Your task to perform on an android device: Go to ESPN.com Image 0: 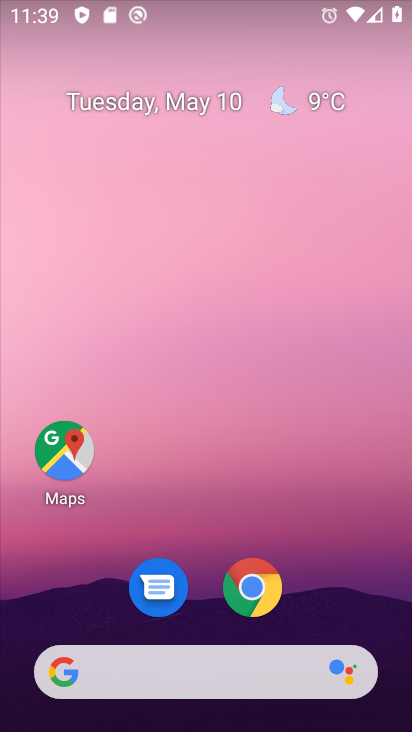
Step 0: click (251, 588)
Your task to perform on an android device: Go to ESPN.com Image 1: 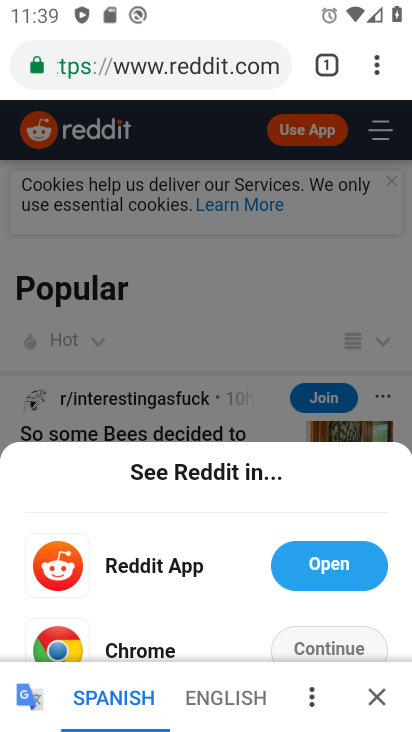
Step 1: click (115, 60)
Your task to perform on an android device: Go to ESPN.com Image 2: 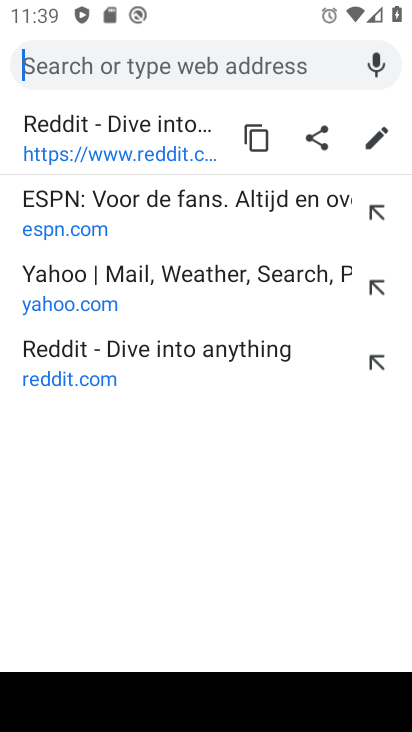
Step 2: click (67, 210)
Your task to perform on an android device: Go to ESPN.com Image 3: 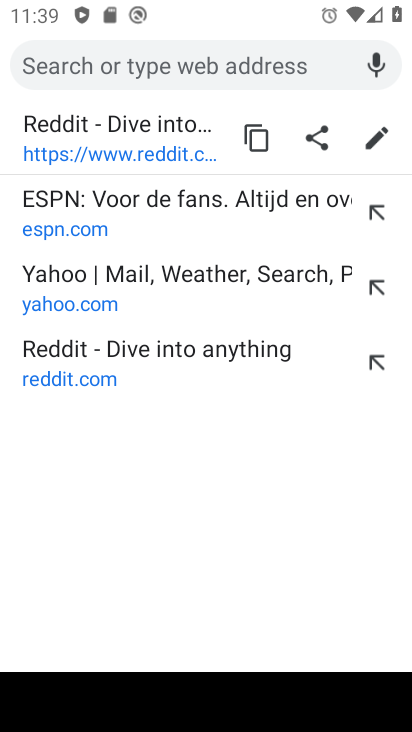
Step 3: click (61, 215)
Your task to perform on an android device: Go to ESPN.com Image 4: 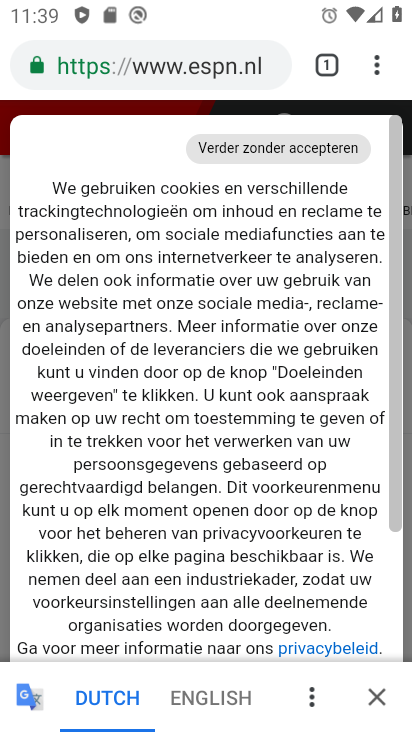
Step 4: task complete